Your task to perform on an android device: open device folders in google photos Image 0: 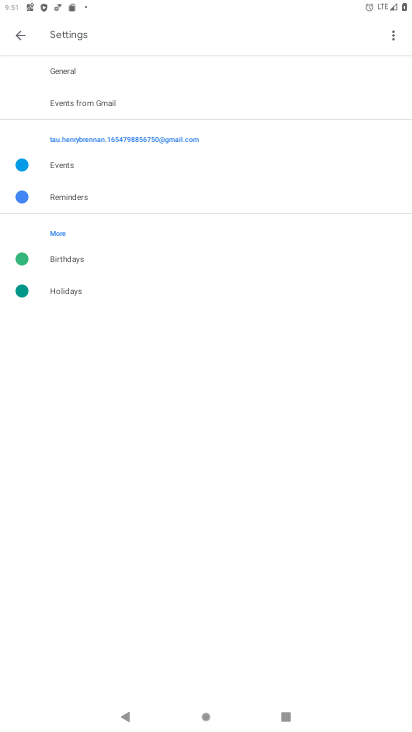
Step 0: press home button
Your task to perform on an android device: open device folders in google photos Image 1: 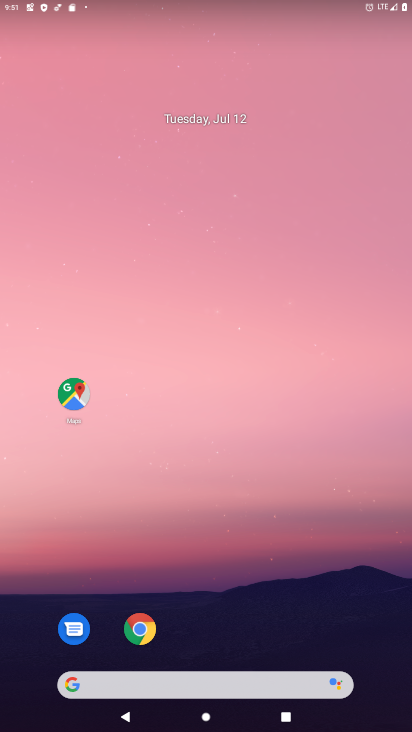
Step 1: drag from (368, 640) to (317, 49)
Your task to perform on an android device: open device folders in google photos Image 2: 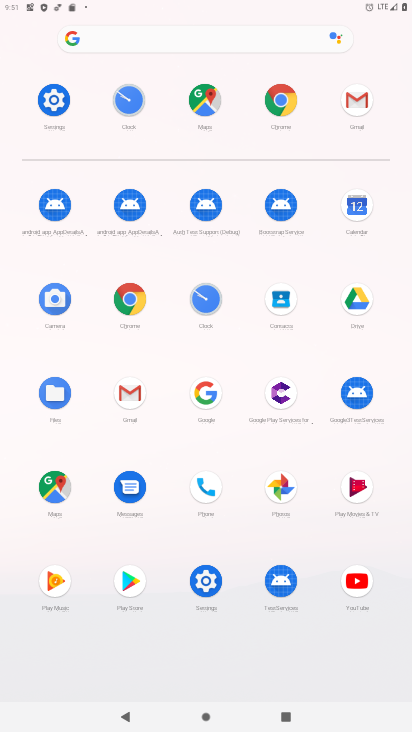
Step 2: click (282, 487)
Your task to perform on an android device: open device folders in google photos Image 3: 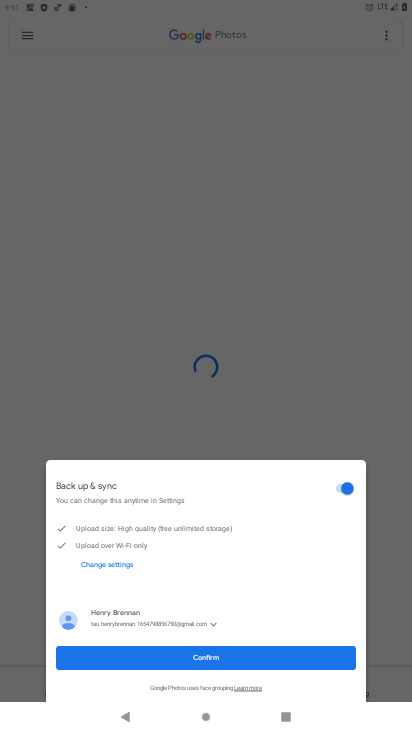
Step 3: click (201, 659)
Your task to perform on an android device: open device folders in google photos Image 4: 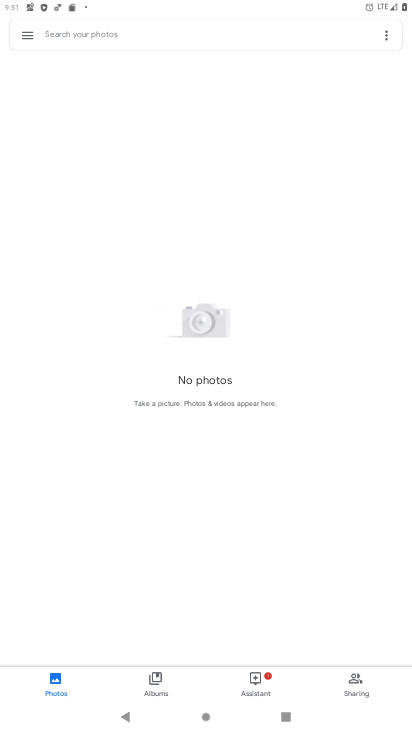
Step 4: click (23, 36)
Your task to perform on an android device: open device folders in google photos Image 5: 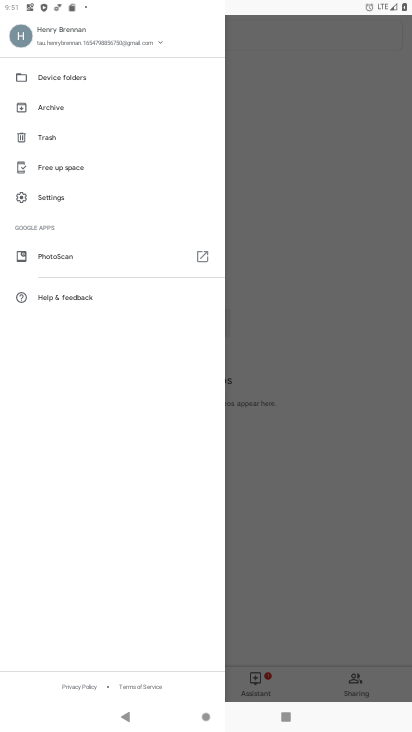
Step 5: click (61, 81)
Your task to perform on an android device: open device folders in google photos Image 6: 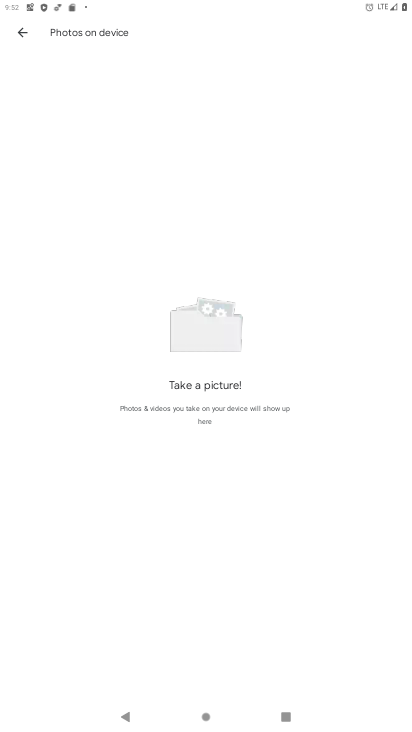
Step 6: task complete